Your task to perform on an android device: turn on location history Image 0: 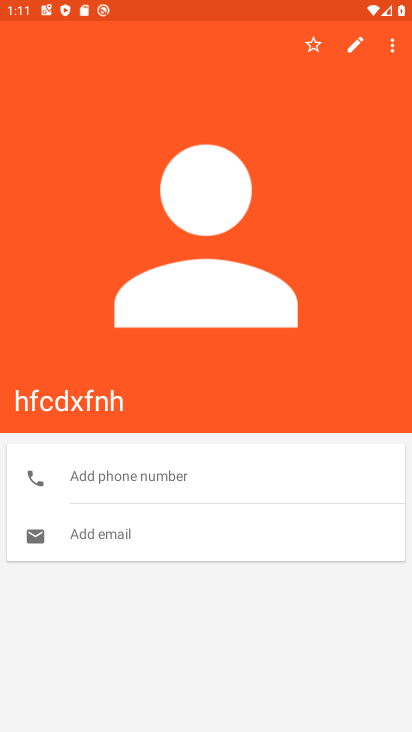
Step 0: press home button
Your task to perform on an android device: turn on location history Image 1: 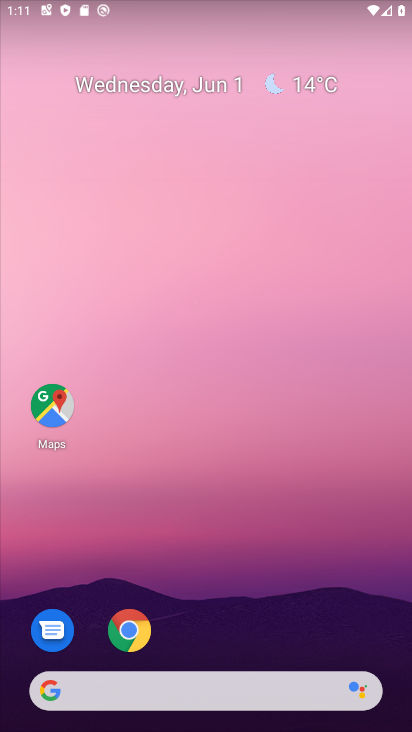
Step 1: drag from (219, 653) to (231, 49)
Your task to perform on an android device: turn on location history Image 2: 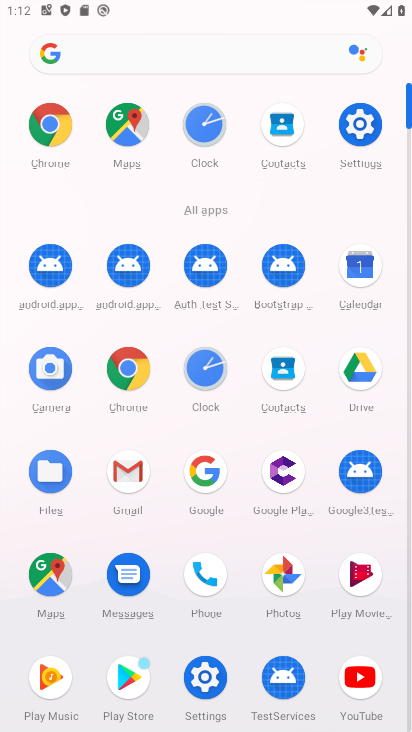
Step 2: click (360, 112)
Your task to perform on an android device: turn on location history Image 3: 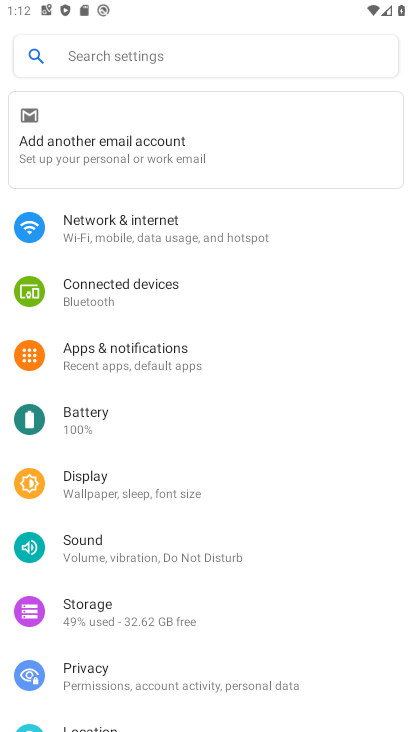
Step 3: drag from (155, 621) to (217, 186)
Your task to perform on an android device: turn on location history Image 4: 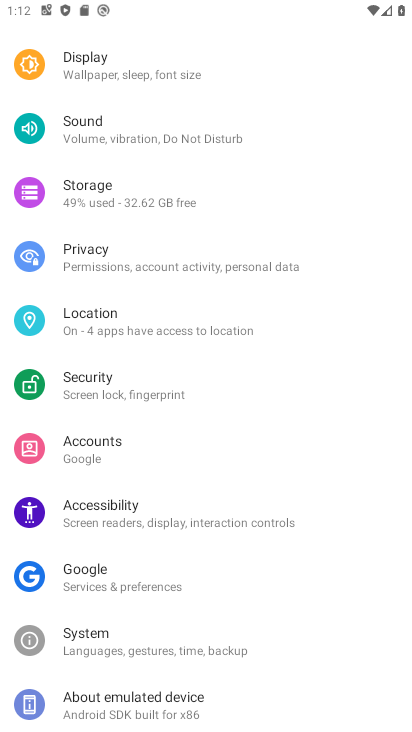
Step 4: click (124, 317)
Your task to perform on an android device: turn on location history Image 5: 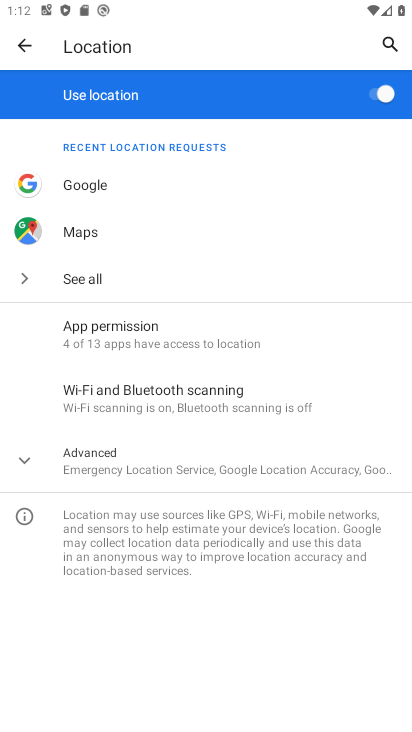
Step 5: click (60, 456)
Your task to perform on an android device: turn on location history Image 6: 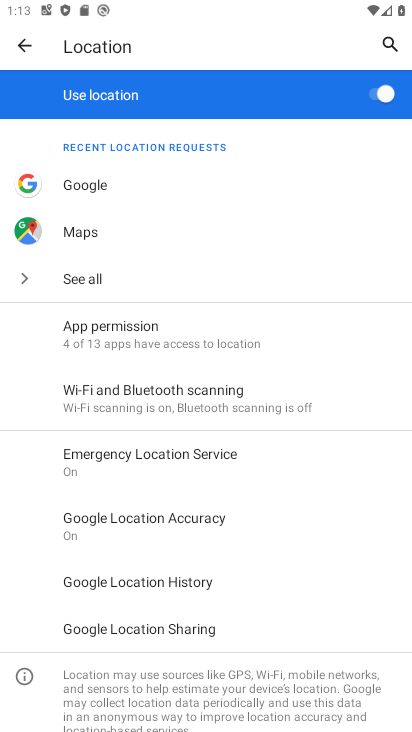
Step 6: click (221, 579)
Your task to perform on an android device: turn on location history Image 7: 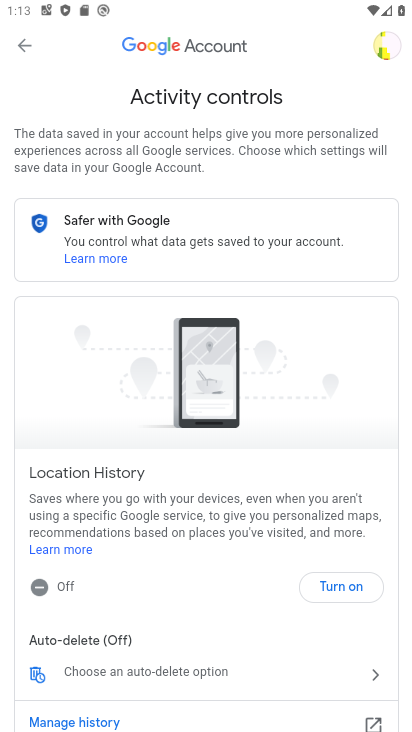
Step 7: click (335, 583)
Your task to perform on an android device: turn on location history Image 8: 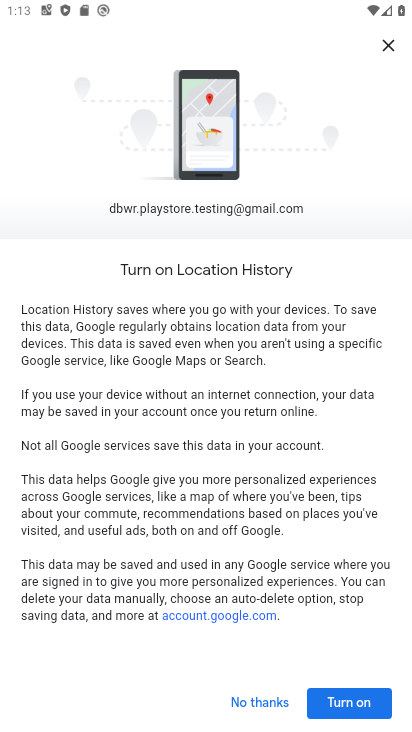
Step 8: click (348, 714)
Your task to perform on an android device: turn on location history Image 9: 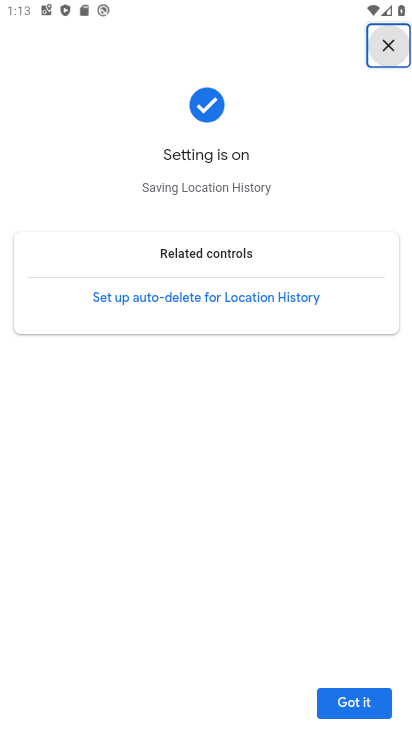
Step 9: click (347, 702)
Your task to perform on an android device: turn on location history Image 10: 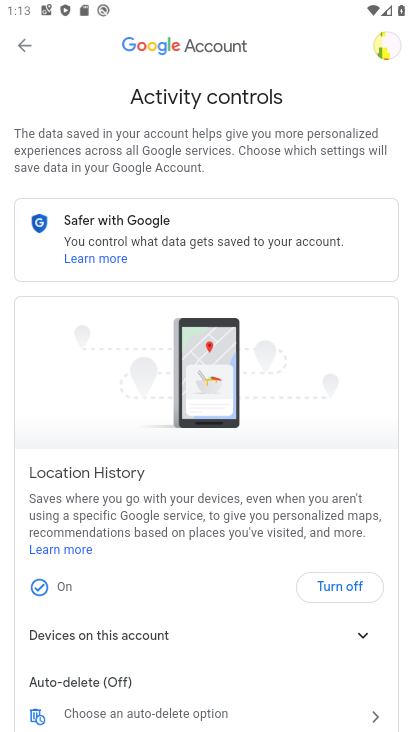
Step 10: task complete